Your task to perform on an android device: Go to display settings Image 0: 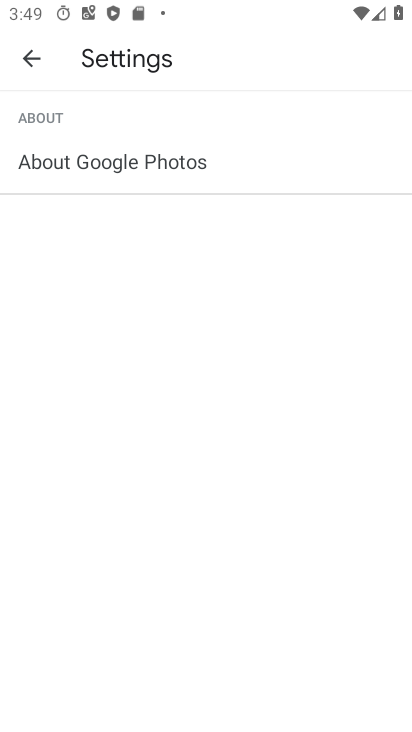
Step 0: click (33, 65)
Your task to perform on an android device: Go to display settings Image 1: 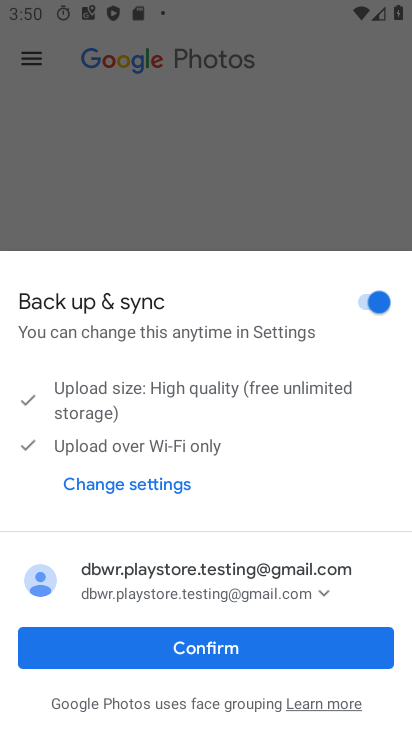
Step 1: click (254, 643)
Your task to perform on an android device: Go to display settings Image 2: 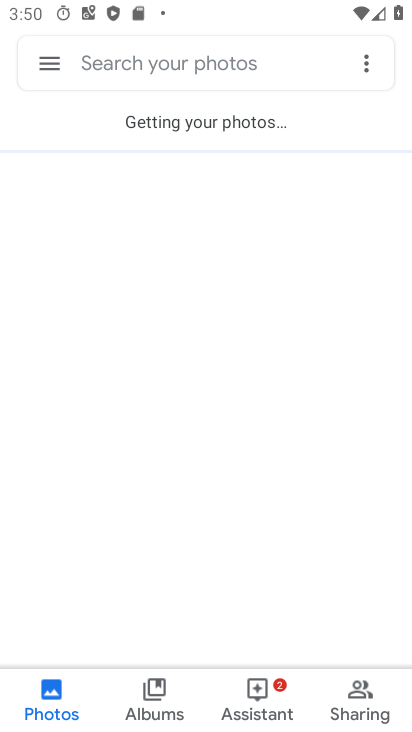
Step 2: press back button
Your task to perform on an android device: Go to display settings Image 3: 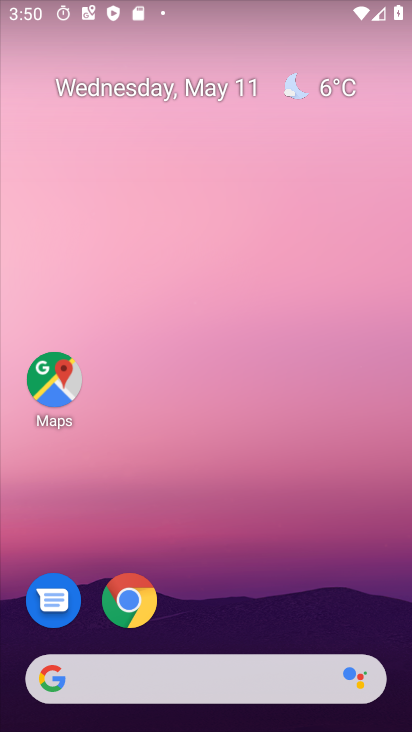
Step 3: drag from (341, 656) to (201, 52)
Your task to perform on an android device: Go to display settings Image 4: 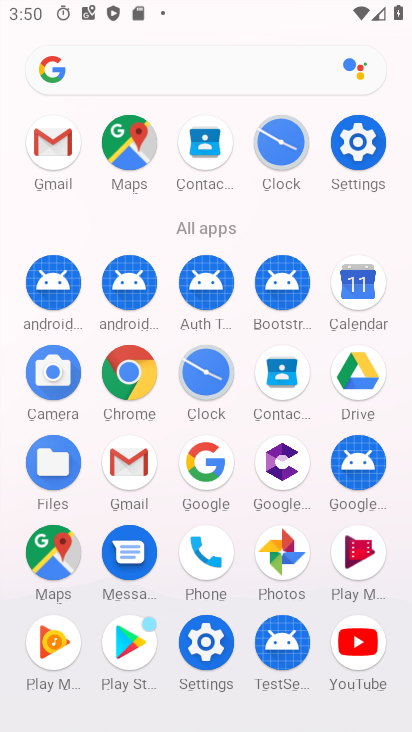
Step 4: click (373, 140)
Your task to perform on an android device: Go to display settings Image 5: 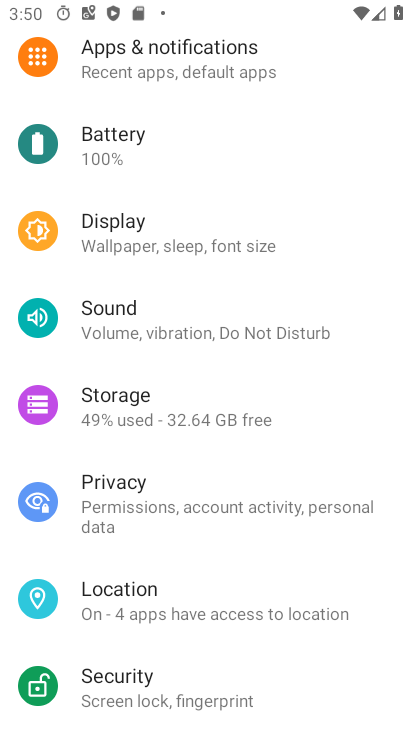
Step 5: click (124, 221)
Your task to perform on an android device: Go to display settings Image 6: 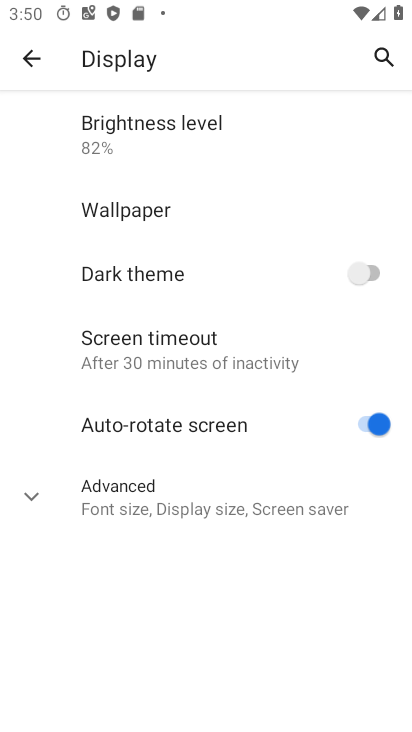
Step 6: task complete